Your task to perform on an android device: turn off wifi Image 0: 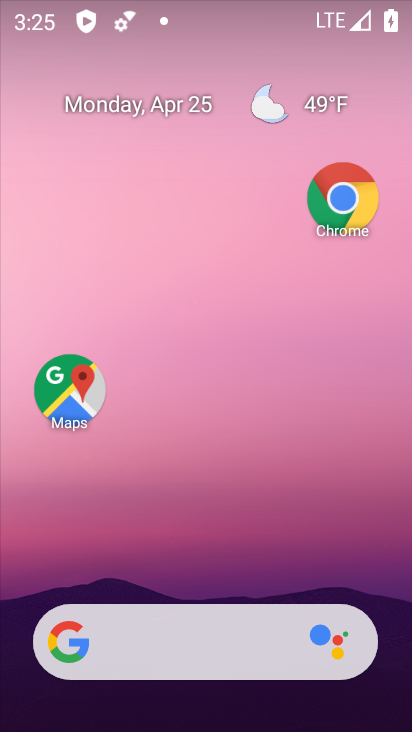
Step 0: drag from (187, 636) to (302, 38)
Your task to perform on an android device: turn off wifi Image 1: 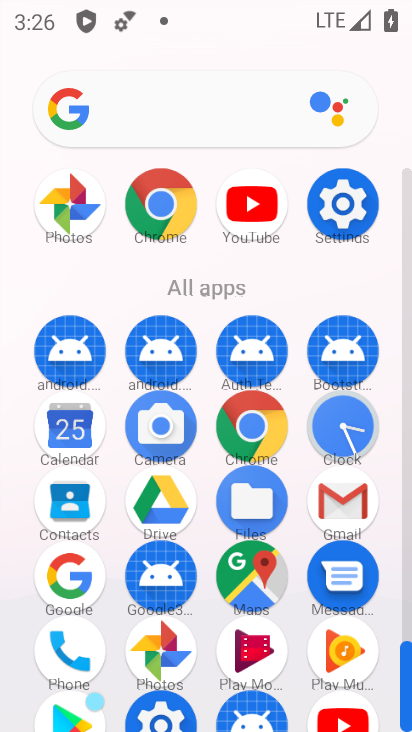
Step 1: click (333, 218)
Your task to perform on an android device: turn off wifi Image 2: 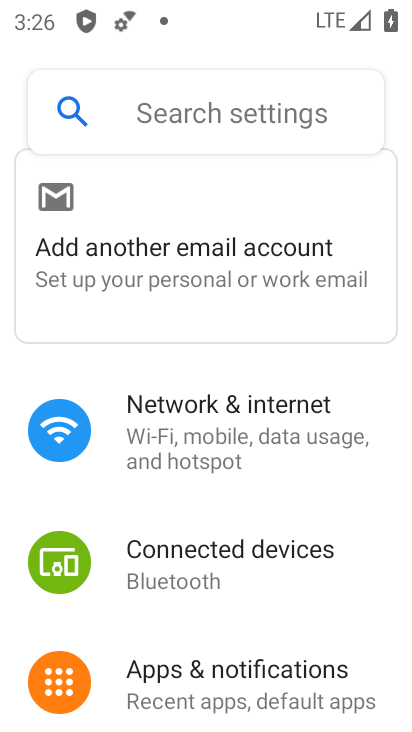
Step 2: click (260, 411)
Your task to perform on an android device: turn off wifi Image 3: 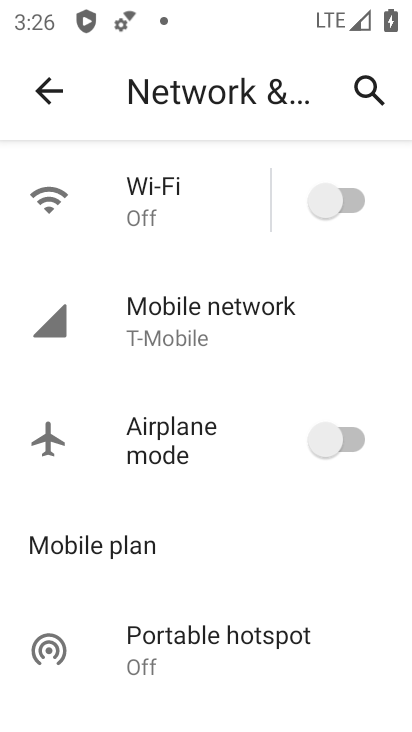
Step 3: task complete